Your task to perform on an android device: Open sound settings Image 0: 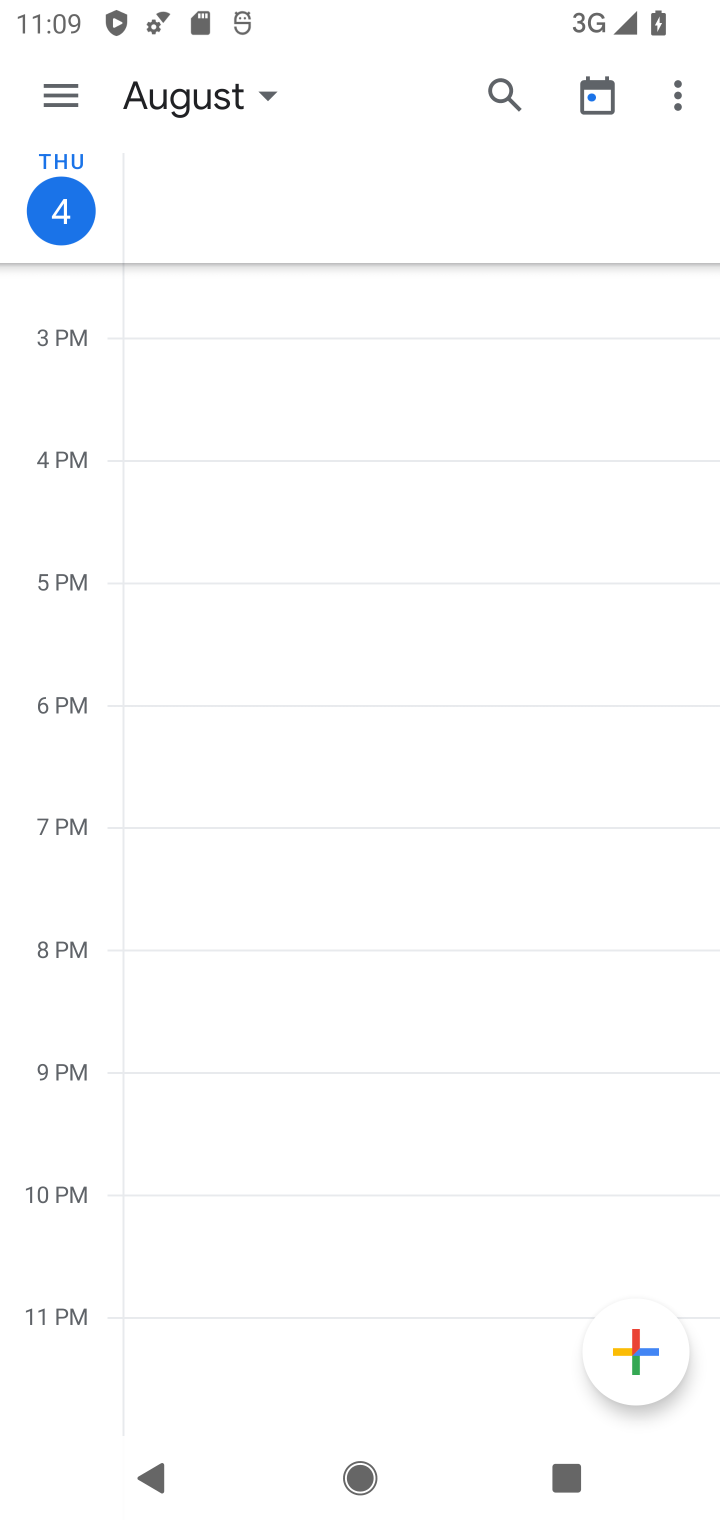
Step 0: press home button
Your task to perform on an android device: Open sound settings Image 1: 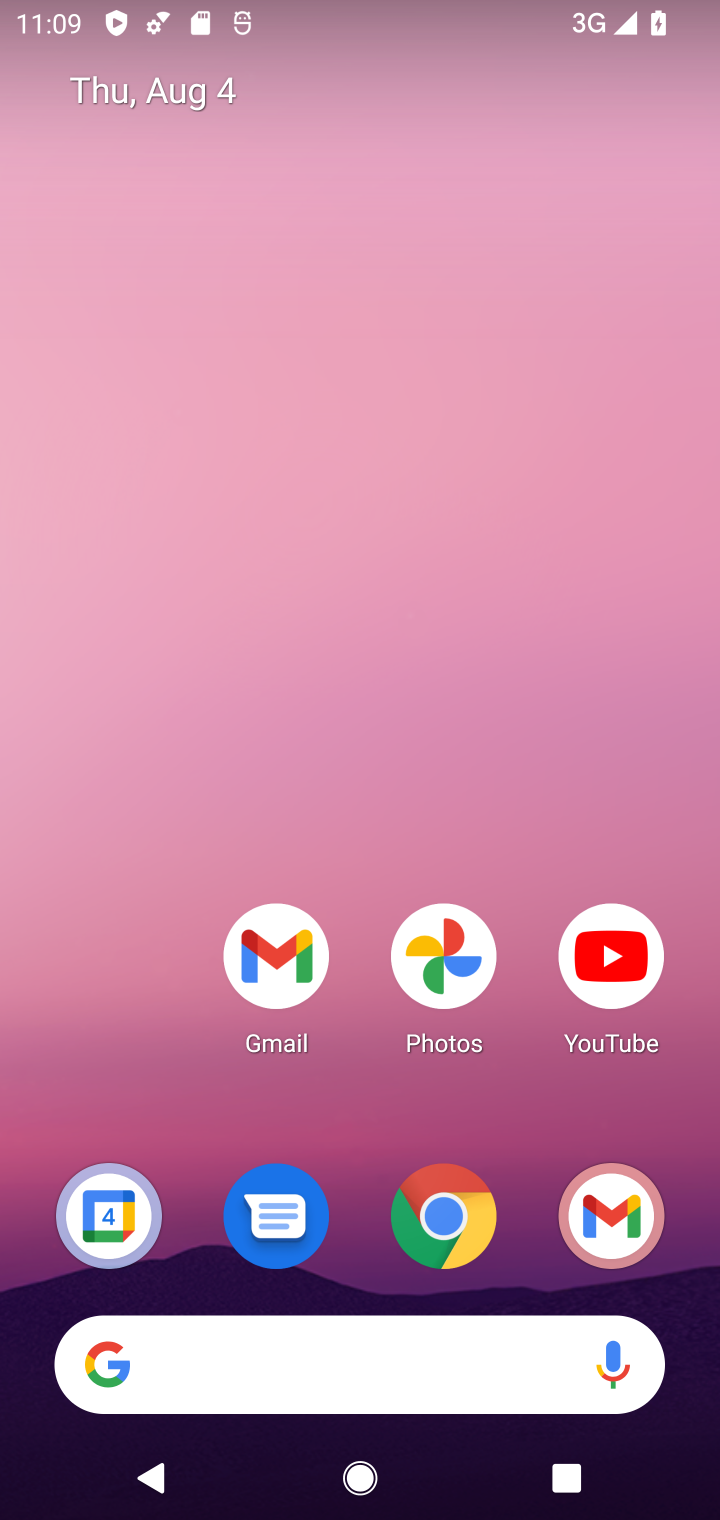
Step 1: drag from (157, 1075) to (250, 148)
Your task to perform on an android device: Open sound settings Image 2: 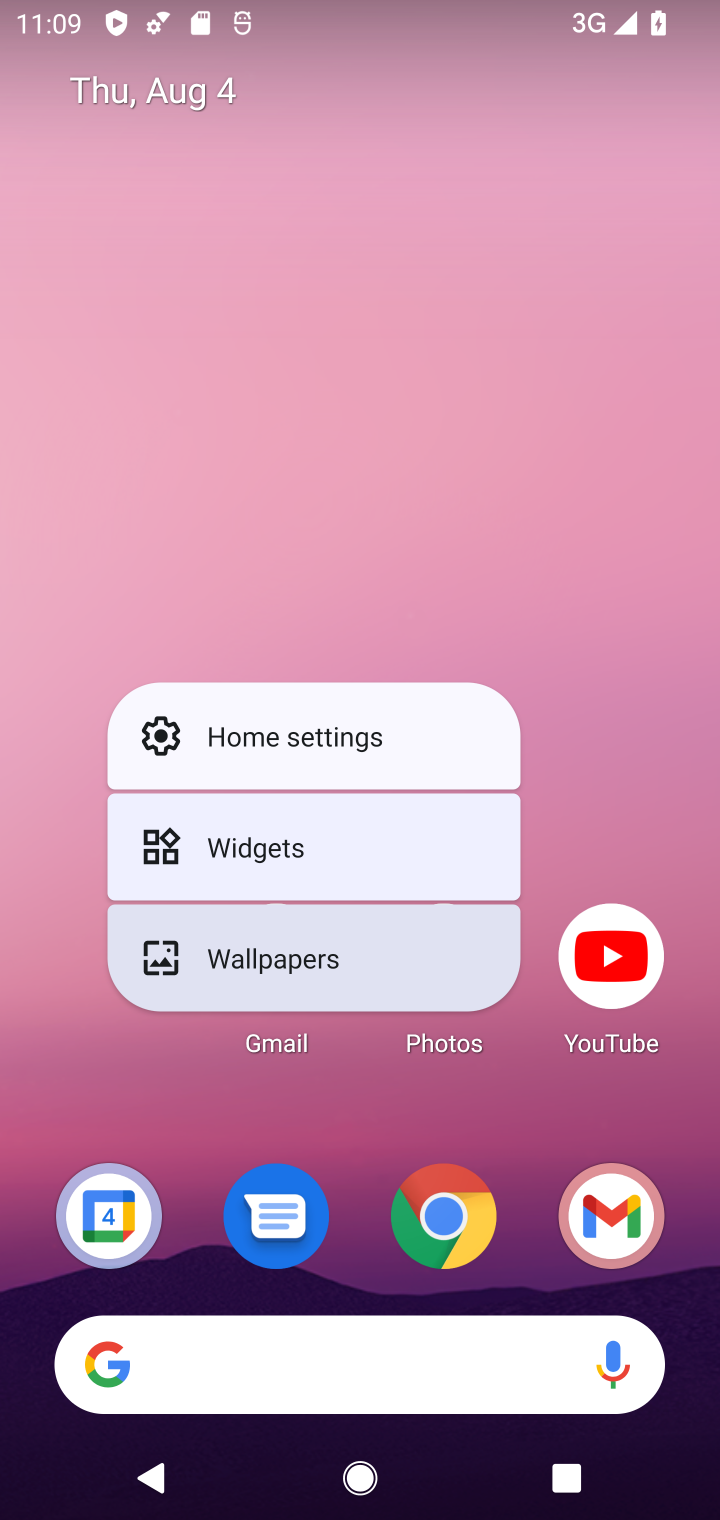
Step 2: click (250, 243)
Your task to perform on an android device: Open sound settings Image 3: 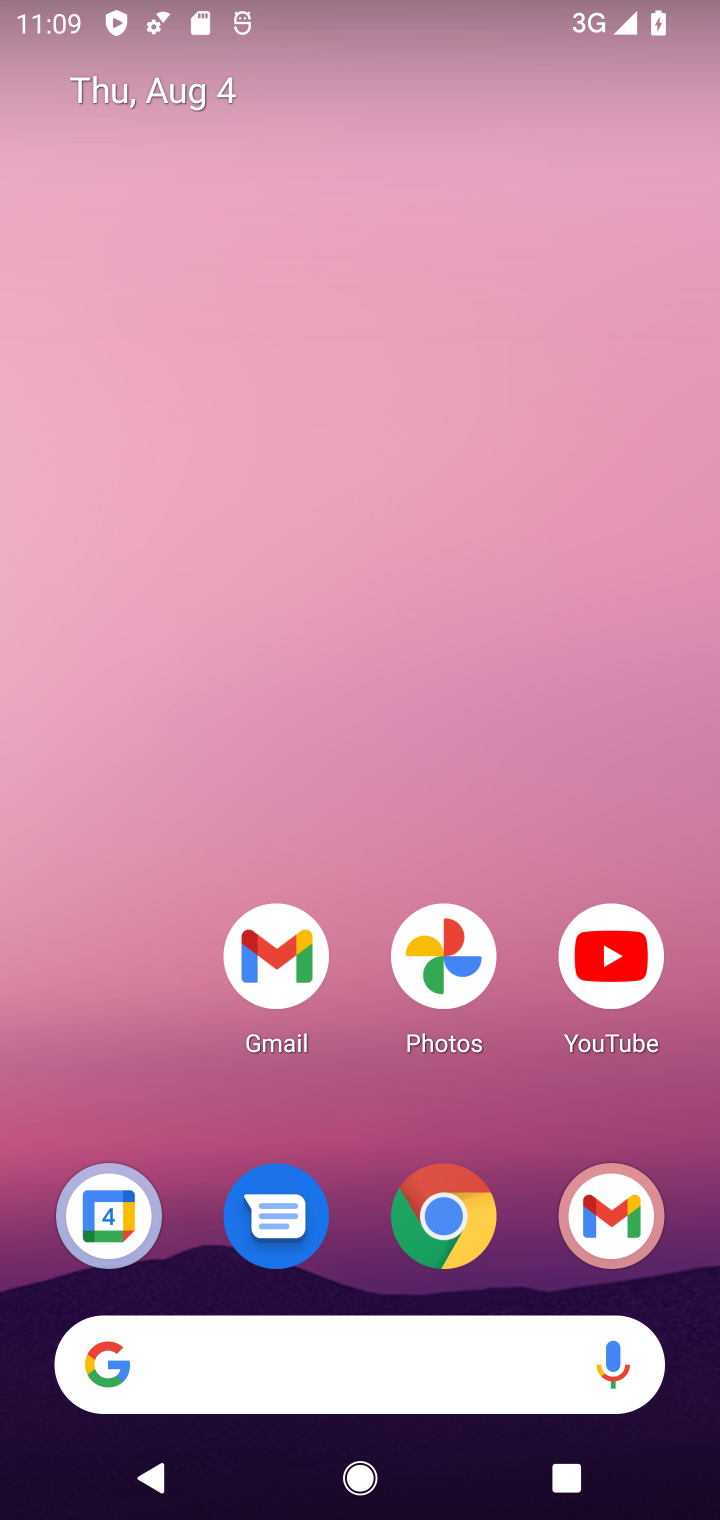
Step 3: drag from (142, 1021) to (309, 7)
Your task to perform on an android device: Open sound settings Image 4: 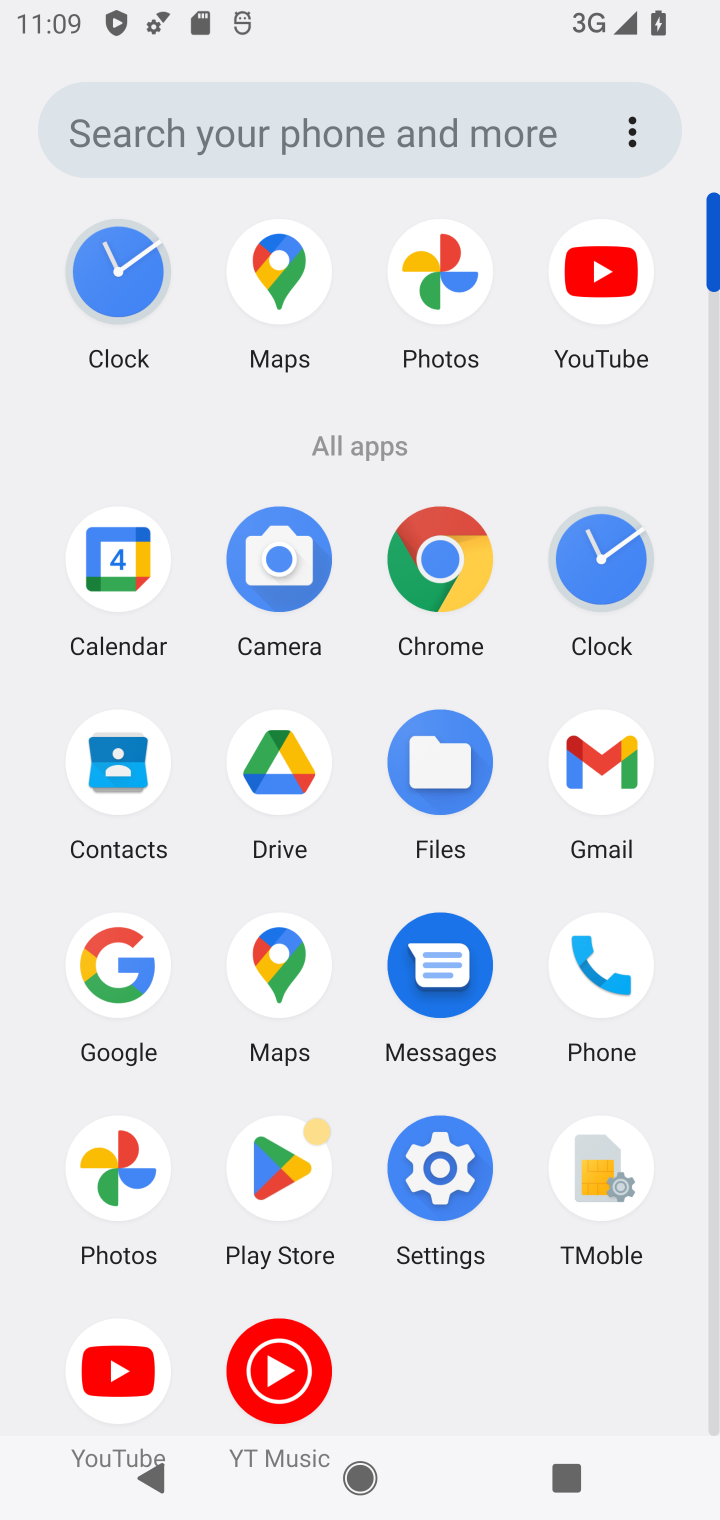
Step 4: click (441, 1162)
Your task to perform on an android device: Open sound settings Image 5: 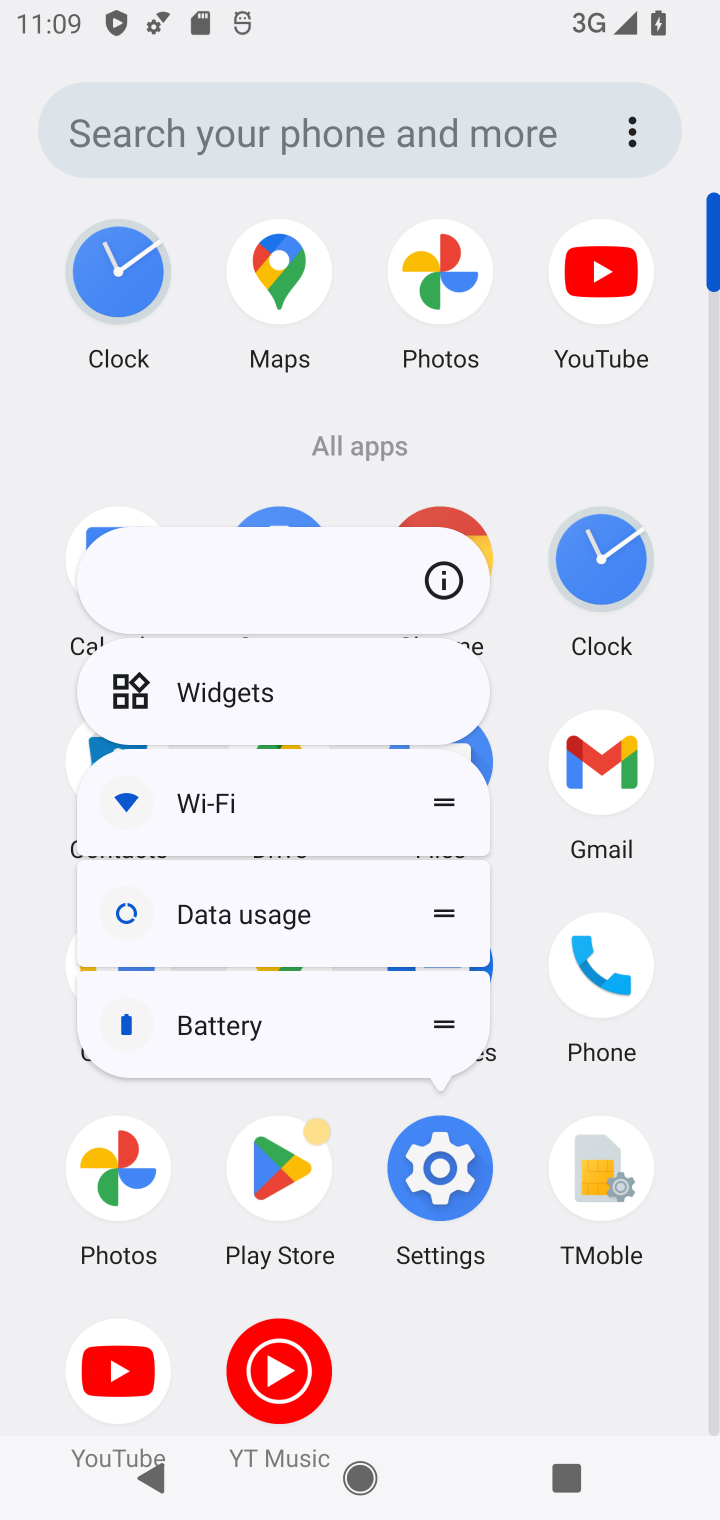
Step 5: click (441, 1165)
Your task to perform on an android device: Open sound settings Image 6: 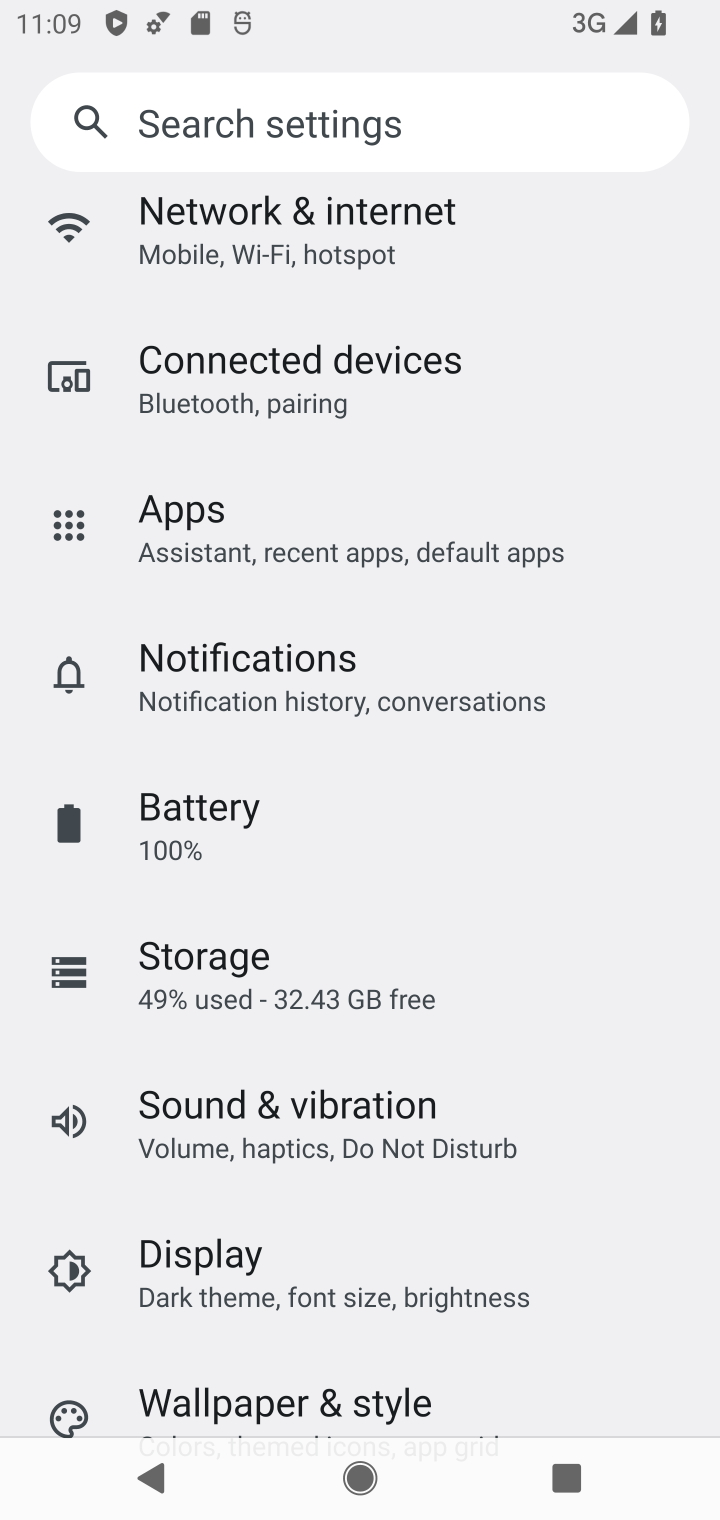
Step 6: drag from (522, 849) to (536, 425)
Your task to perform on an android device: Open sound settings Image 7: 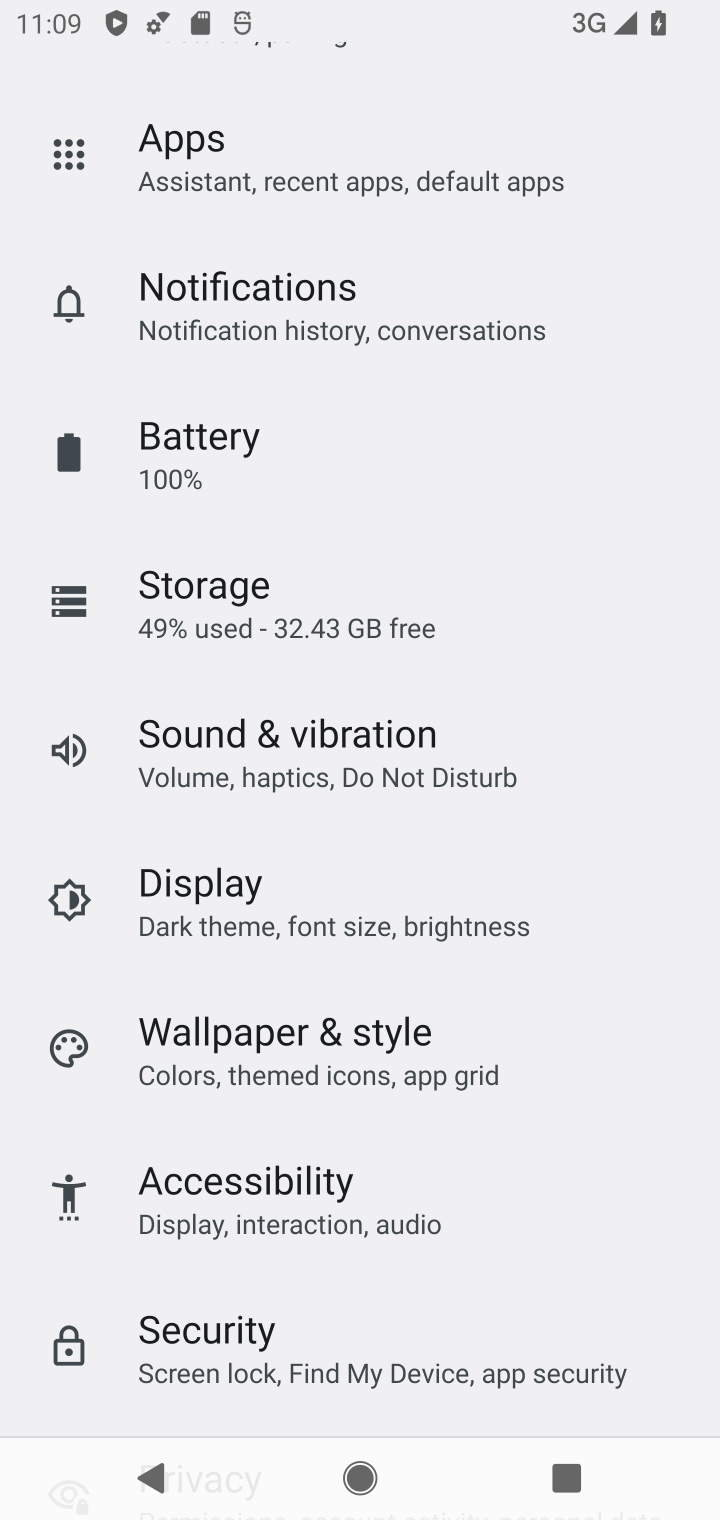
Step 7: click (369, 746)
Your task to perform on an android device: Open sound settings Image 8: 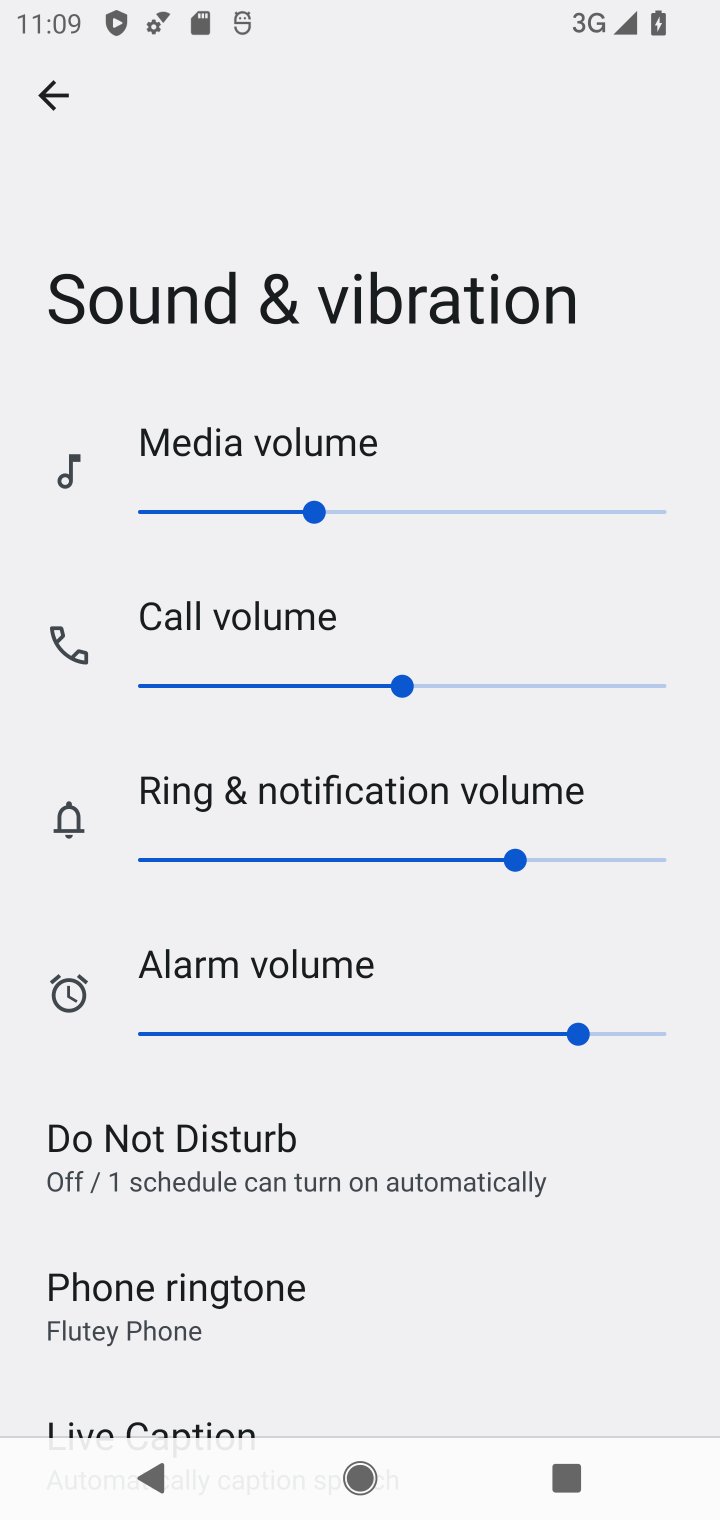
Step 8: task complete